Your task to perform on an android device: turn on location history Image 0: 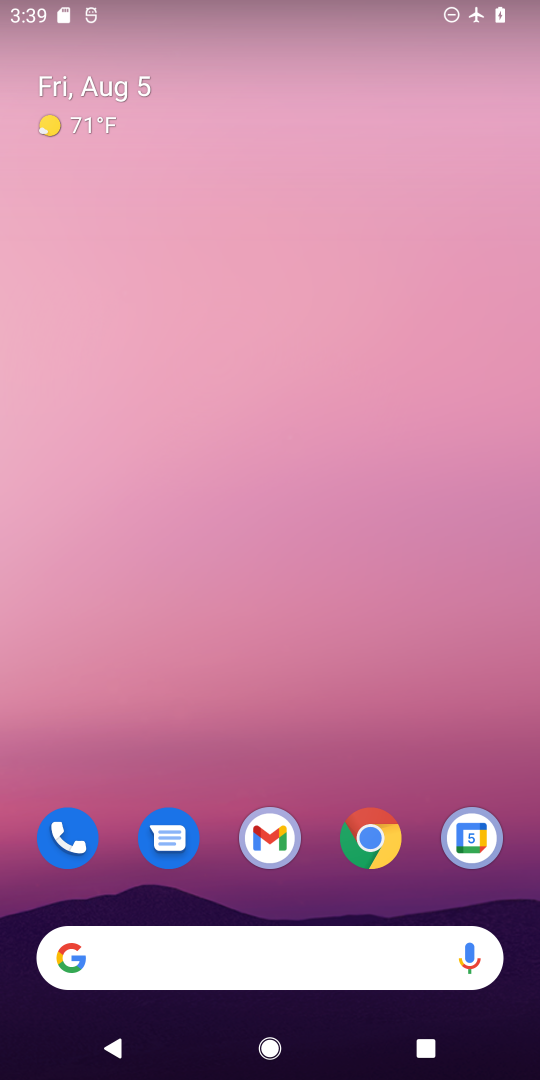
Step 0: drag from (394, 757) to (282, 107)
Your task to perform on an android device: turn on location history Image 1: 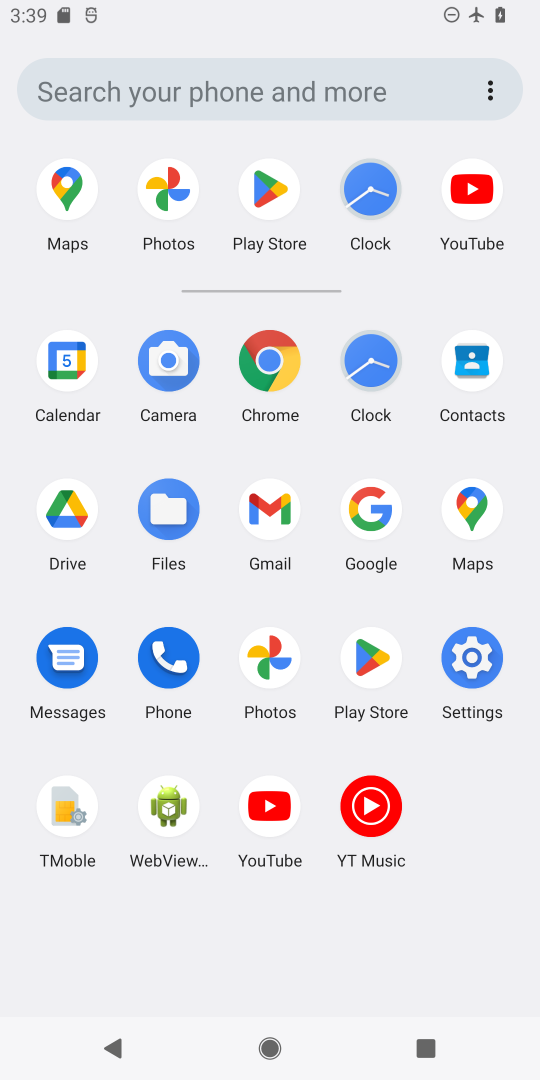
Step 1: click (472, 534)
Your task to perform on an android device: turn on location history Image 2: 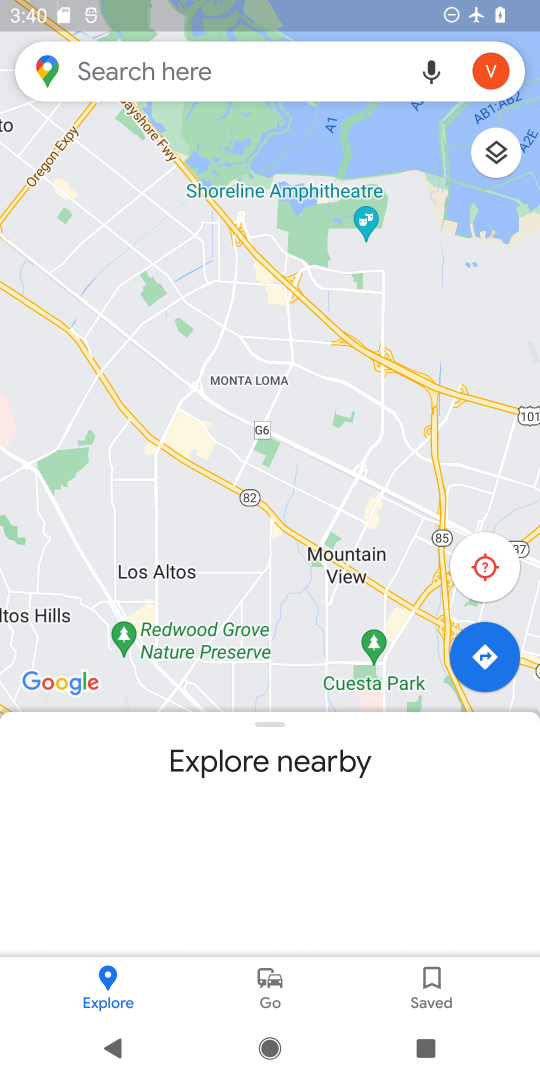
Step 2: click (501, 67)
Your task to perform on an android device: turn on location history Image 3: 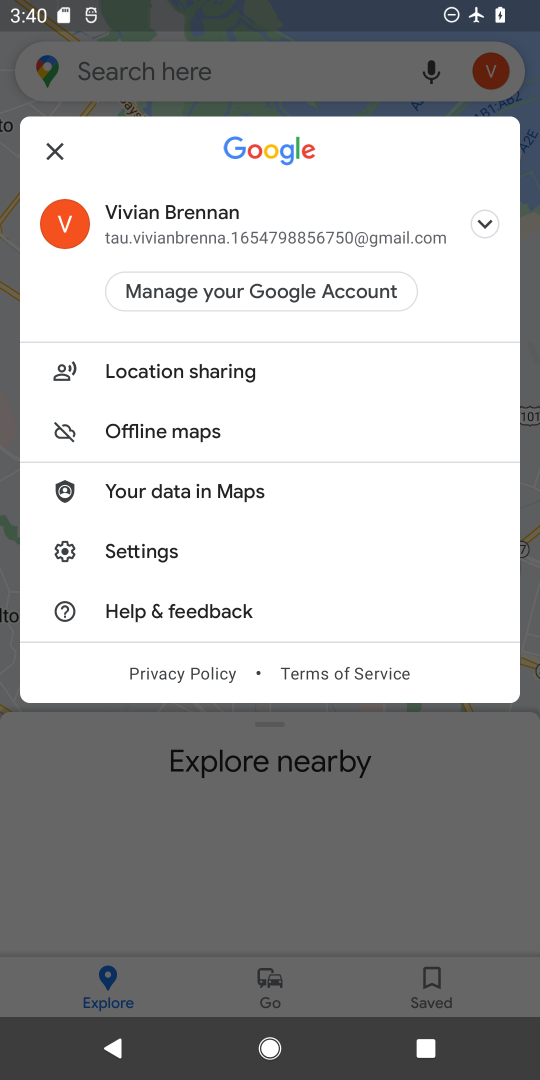
Step 3: click (161, 559)
Your task to perform on an android device: turn on location history Image 4: 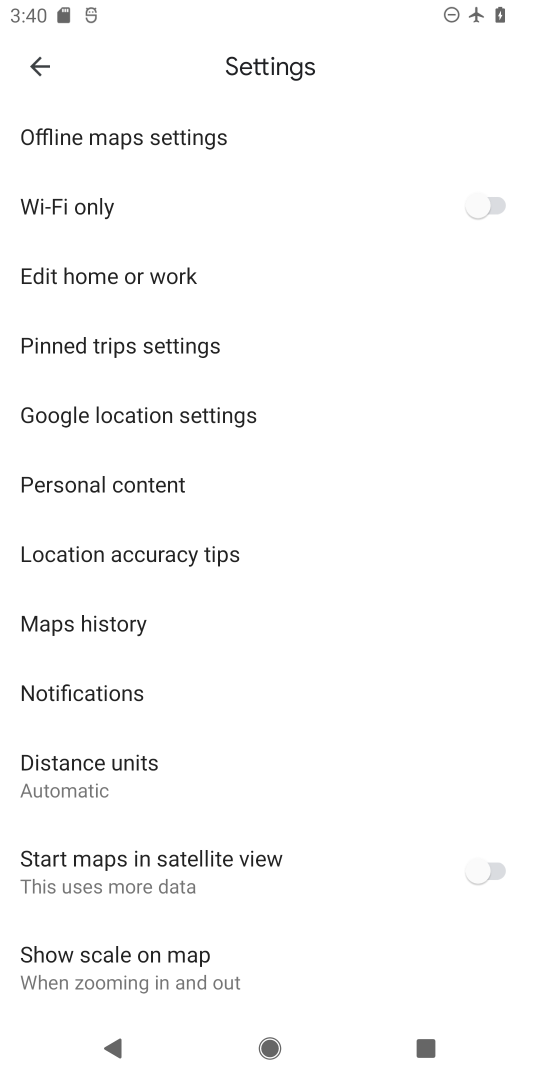
Step 4: task complete